Your task to perform on an android device: empty trash in google photos Image 0: 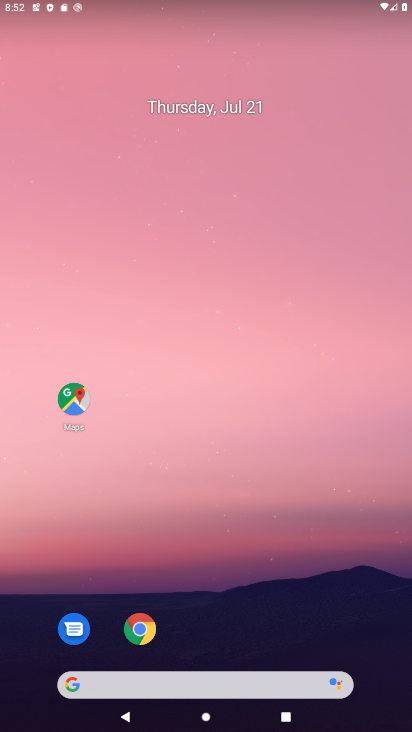
Step 0: drag from (236, 618) to (236, 182)
Your task to perform on an android device: empty trash in google photos Image 1: 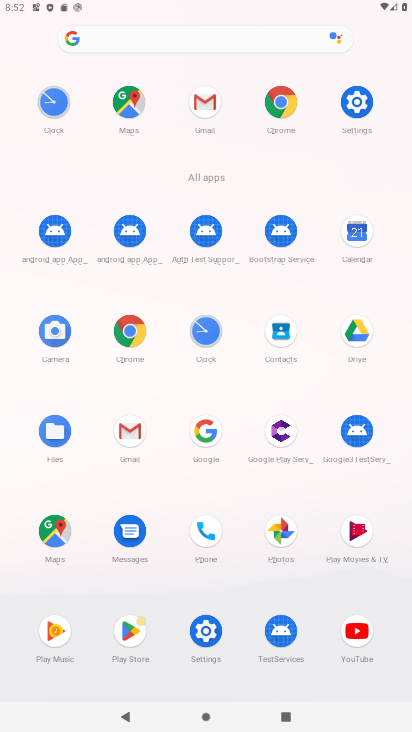
Step 1: click (275, 534)
Your task to perform on an android device: empty trash in google photos Image 2: 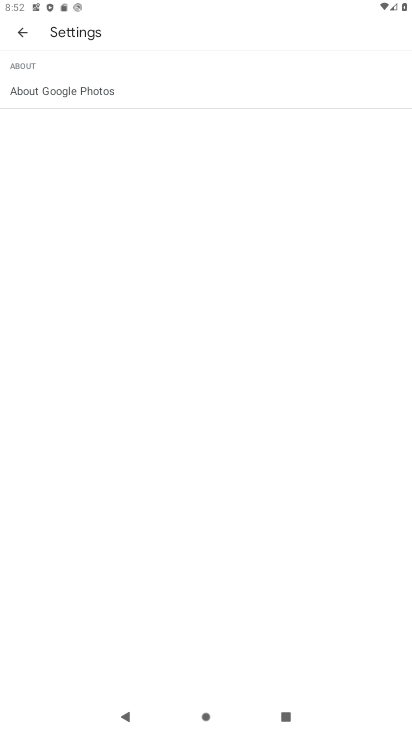
Step 2: click (34, 29)
Your task to perform on an android device: empty trash in google photos Image 3: 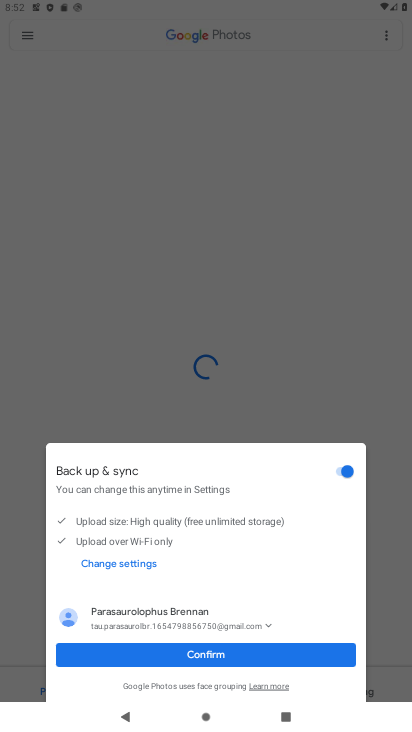
Step 3: click (238, 658)
Your task to perform on an android device: empty trash in google photos Image 4: 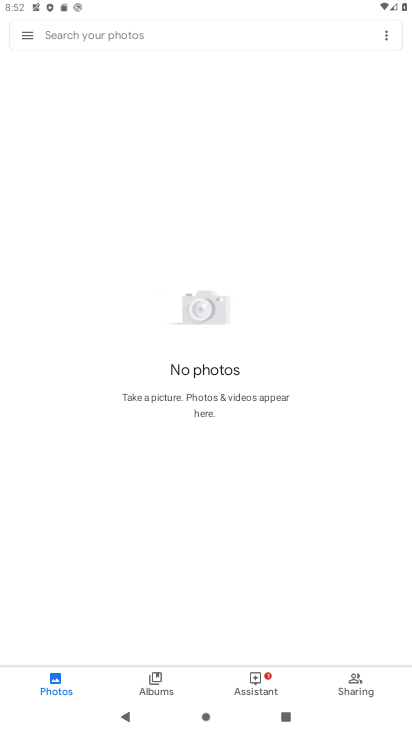
Step 4: click (27, 40)
Your task to perform on an android device: empty trash in google photos Image 5: 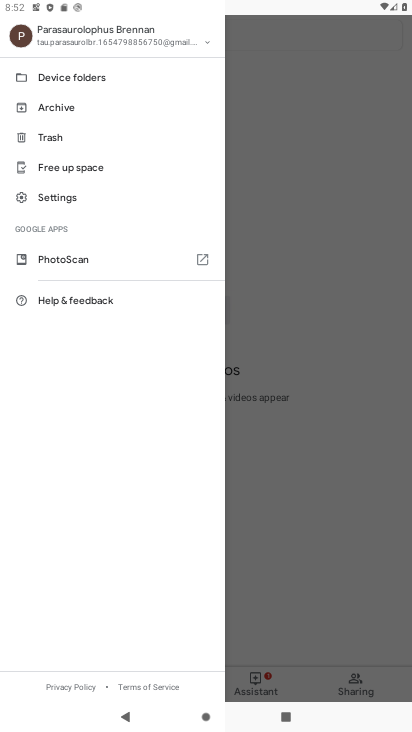
Step 5: click (73, 140)
Your task to perform on an android device: empty trash in google photos Image 6: 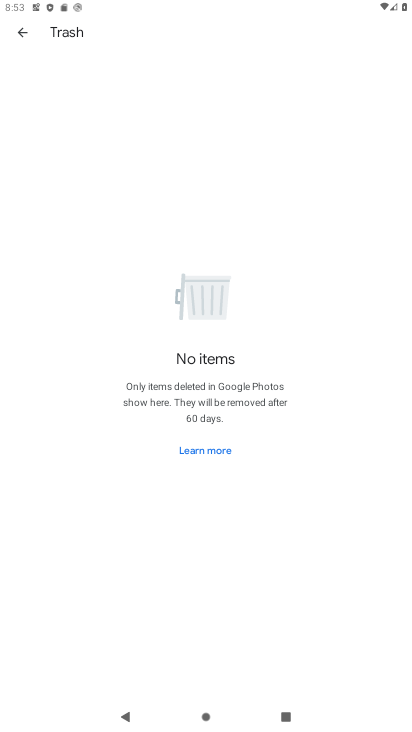
Step 6: task complete